Your task to perform on an android device: delete browsing data in the chrome app Image 0: 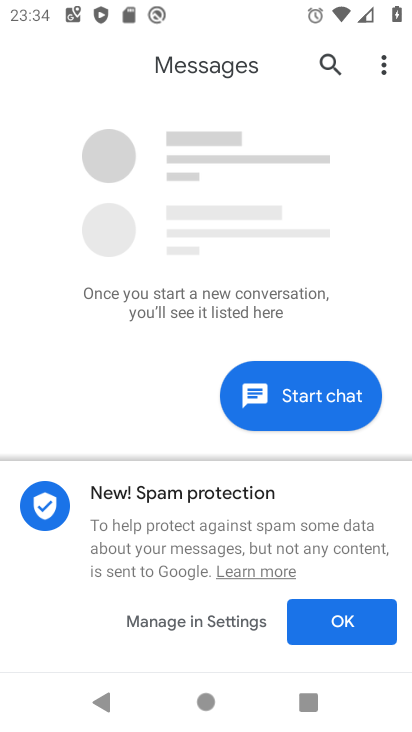
Step 0: press home button
Your task to perform on an android device: delete browsing data in the chrome app Image 1: 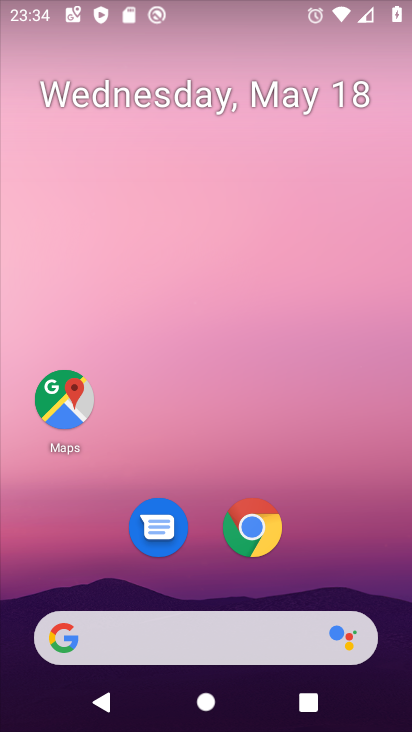
Step 1: drag from (347, 482) to (331, 92)
Your task to perform on an android device: delete browsing data in the chrome app Image 2: 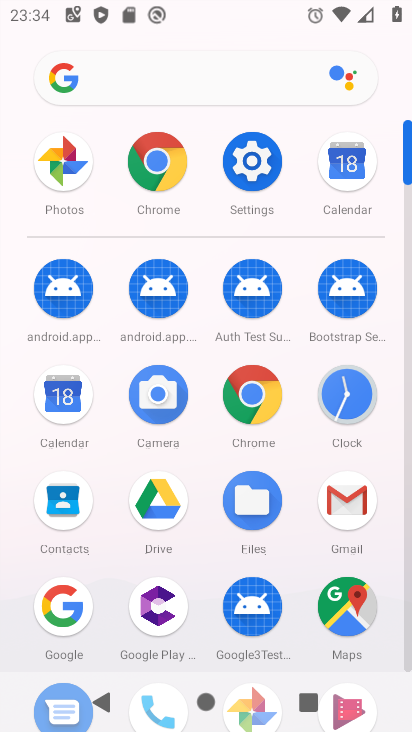
Step 2: click (171, 176)
Your task to perform on an android device: delete browsing data in the chrome app Image 3: 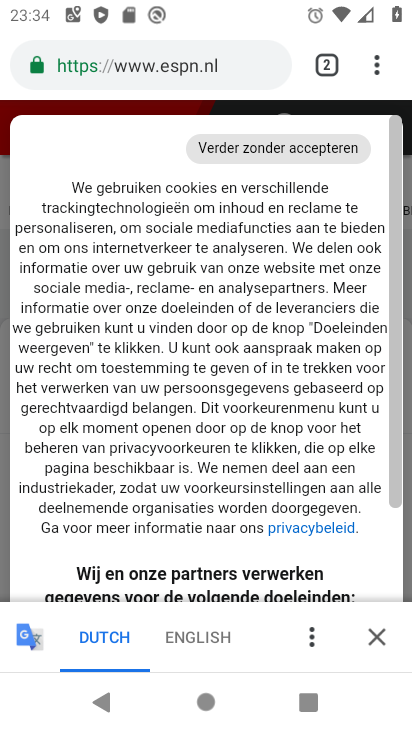
Step 3: click (370, 78)
Your task to perform on an android device: delete browsing data in the chrome app Image 4: 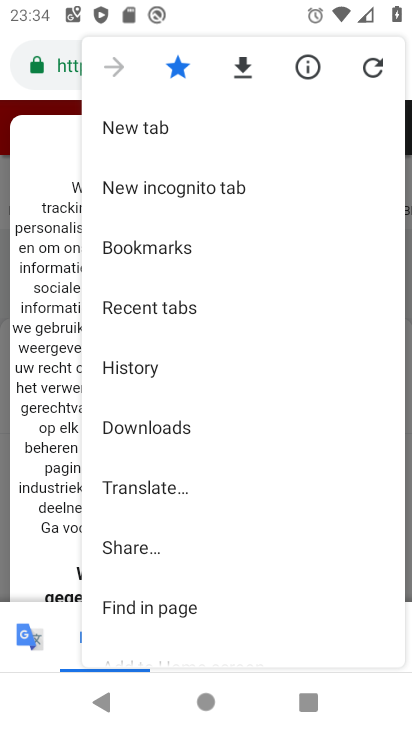
Step 4: click (181, 418)
Your task to perform on an android device: delete browsing data in the chrome app Image 5: 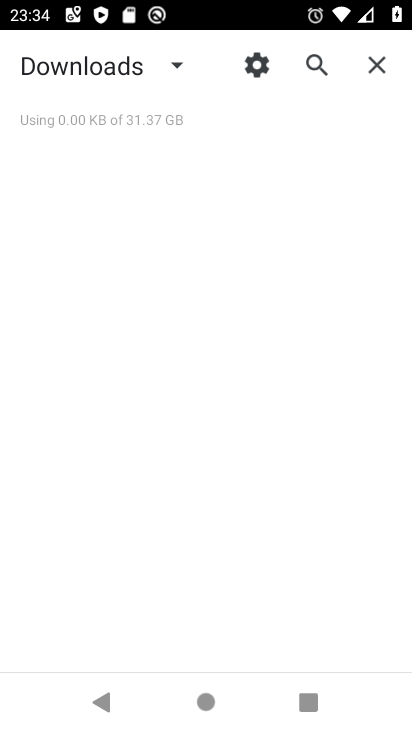
Step 5: task complete